Your task to perform on an android device: open chrome privacy settings Image 0: 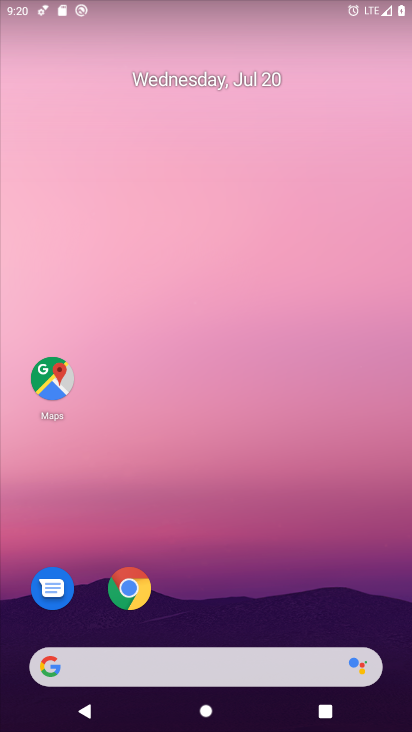
Step 0: press home button
Your task to perform on an android device: open chrome privacy settings Image 1: 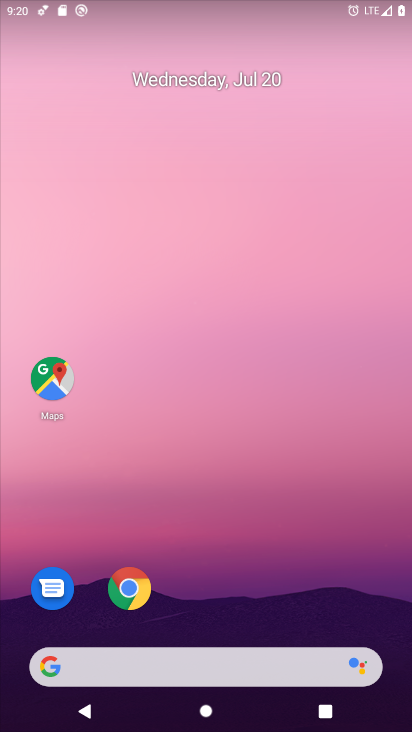
Step 1: drag from (228, 621) to (235, 139)
Your task to perform on an android device: open chrome privacy settings Image 2: 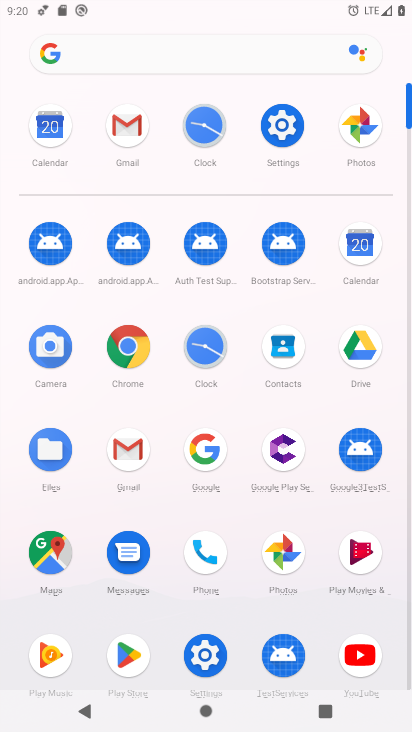
Step 2: click (127, 339)
Your task to perform on an android device: open chrome privacy settings Image 3: 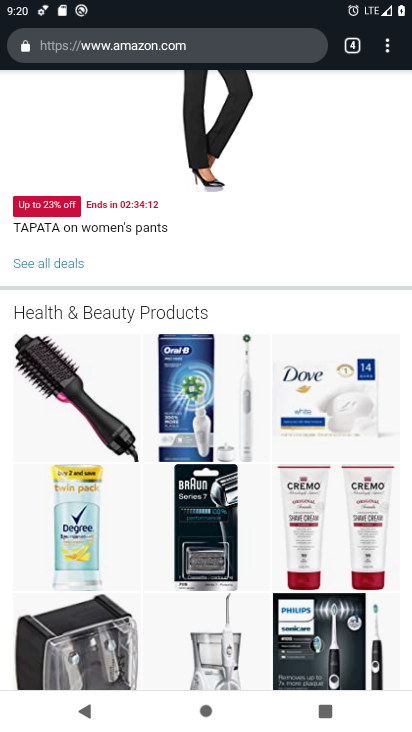
Step 3: click (385, 47)
Your task to perform on an android device: open chrome privacy settings Image 4: 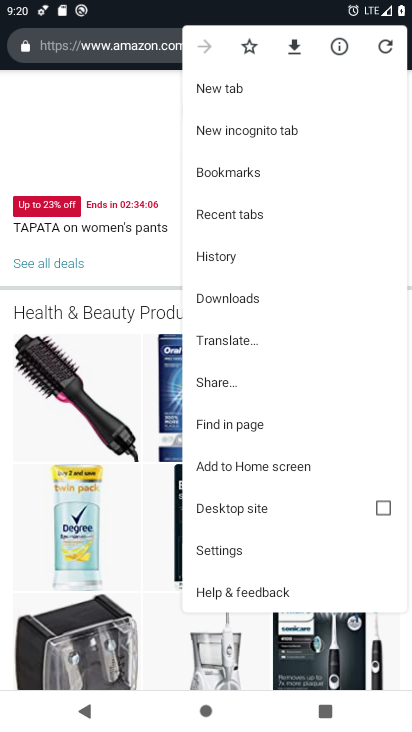
Step 4: click (251, 549)
Your task to perform on an android device: open chrome privacy settings Image 5: 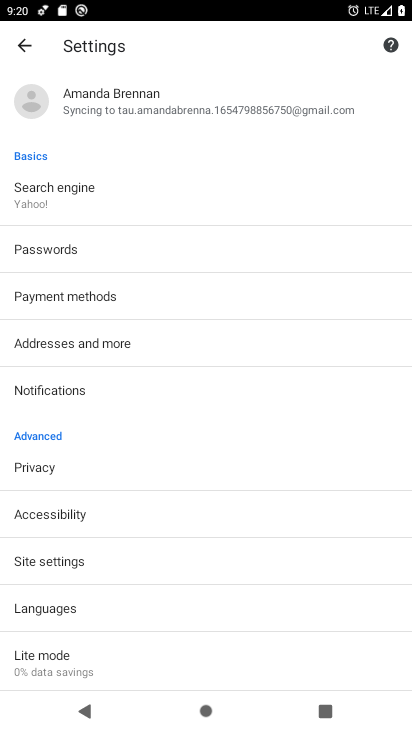
Step 5: click (62, 464)
Your task to perform on an android device: open chrome privacy settings Image 6: 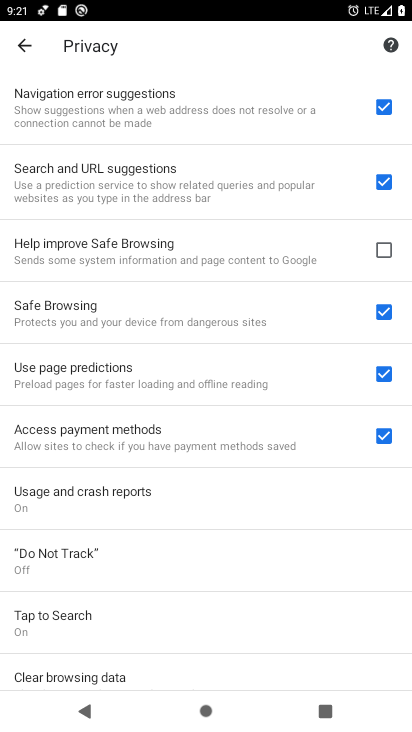
Step 6: task complete